Your task to perform on an android device: turn off location Image 0: 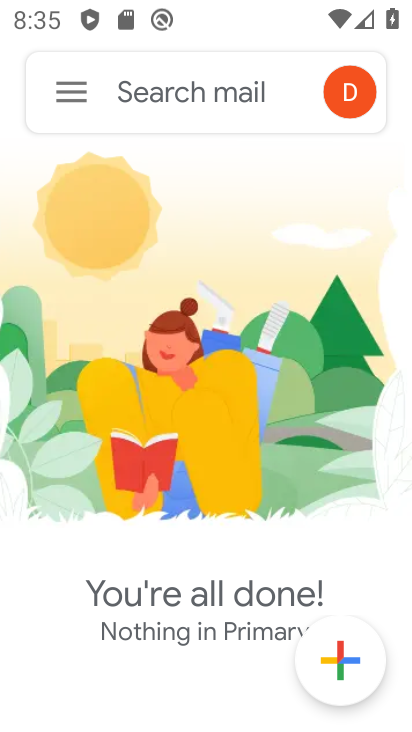
Step 0: press home button
Your task to perform on an android device: turn off location Image 1: 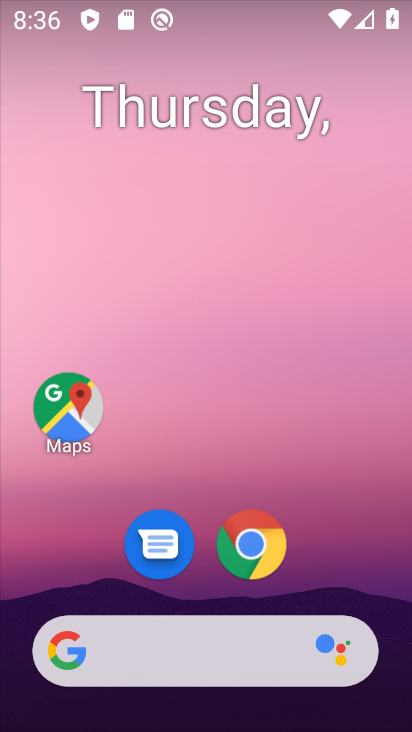
Step 1: drag from (225, 713) to (201, 4)
Your task to perform on an android device: turn off location Image 2: 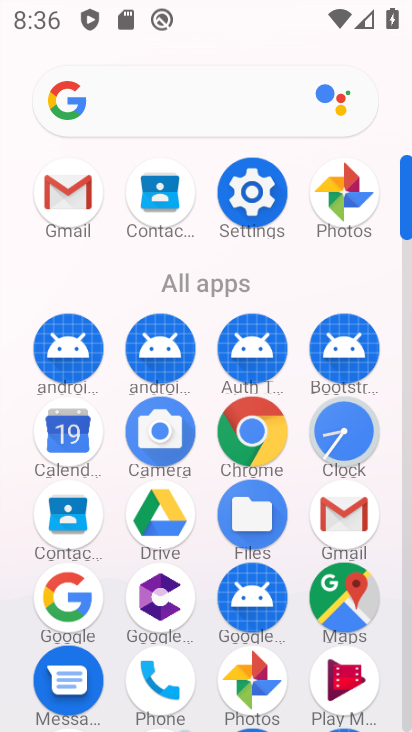
Step 2: click (257, 192)
Your task to perform on an android device: turn off location Image 3: 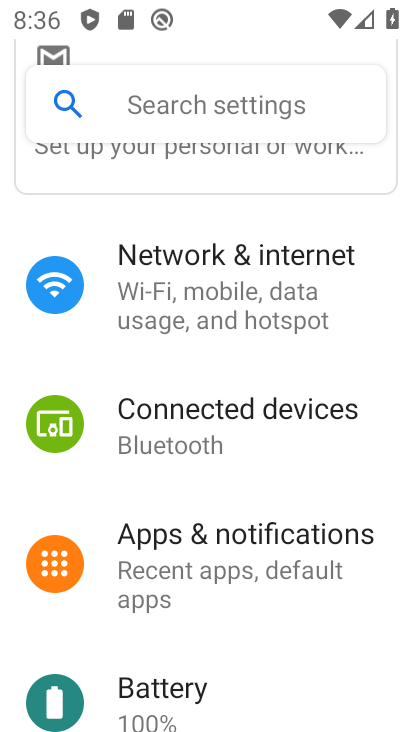
Step 3: drag from (299, 672) to (285, 46)
Your task to perform on an android device: turn off location Image 4: 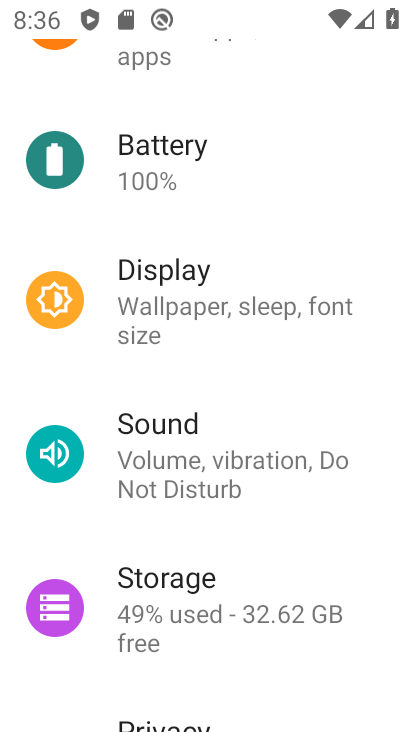
Step 4: drag from (252, 691) to (268, 127)
Your task to perform on an android device: turn off location Image 5: 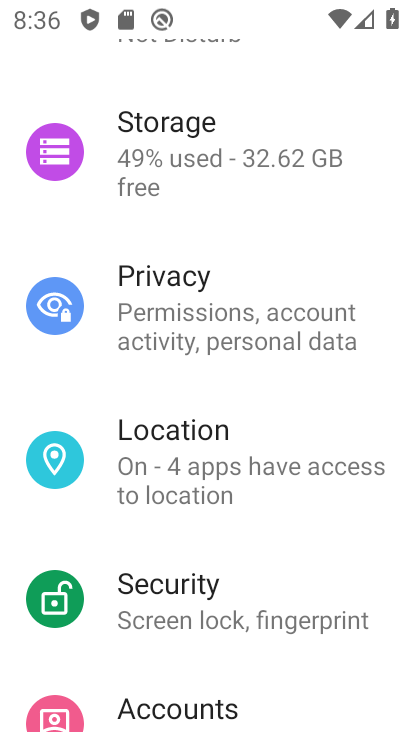
Step 5: click (249, 475)
Your task to perform on an android device: turn off location Image 6: 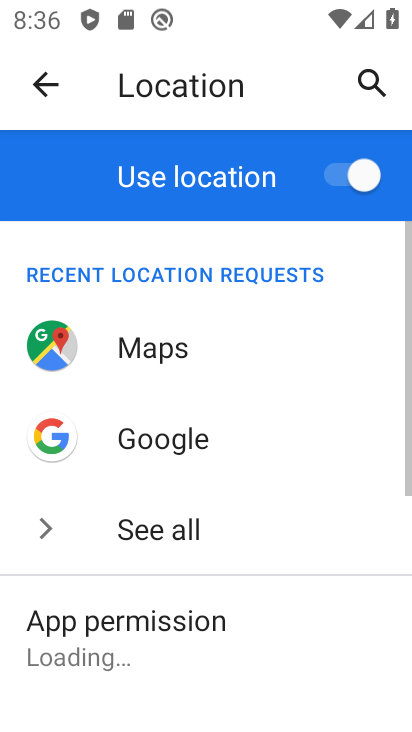
Step 6: click (370, 164)
Your task to perform on an android device: turn off location Image 7: 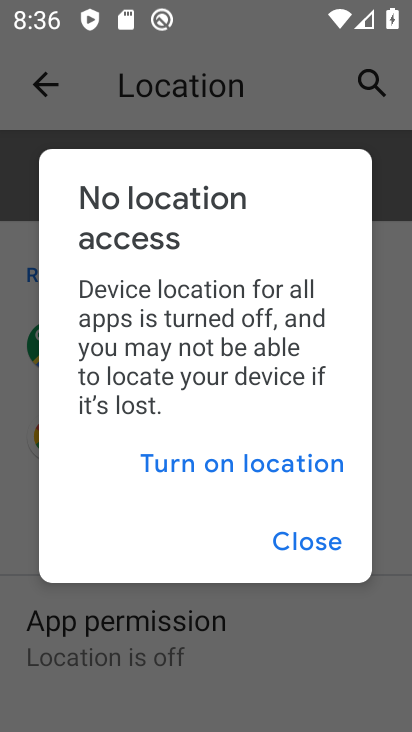
Step 7: click (300, 539)
Your task to perform on an android device: turn off location Image 8: 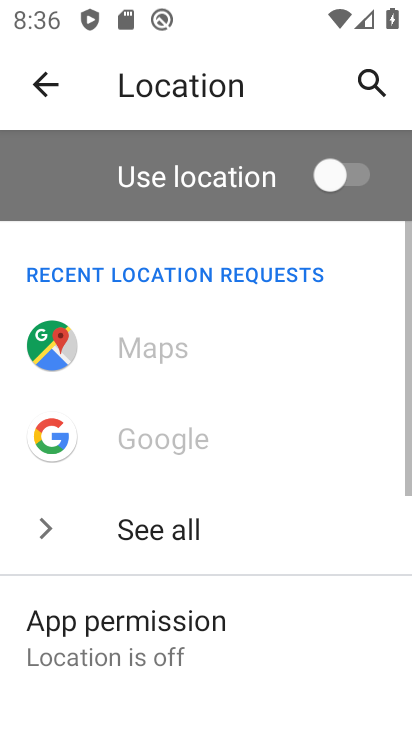
Step 8: task complete